Your task to perform on an android device: read, delete, or share a saved page in the chrome app Image 0: 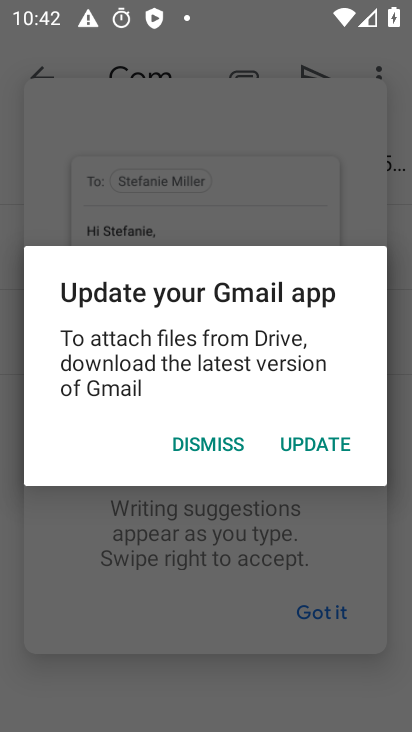
Step 0: press home button
Your task to perform on an android device: read, delete, or share a saved page in the chrome app Image 1: 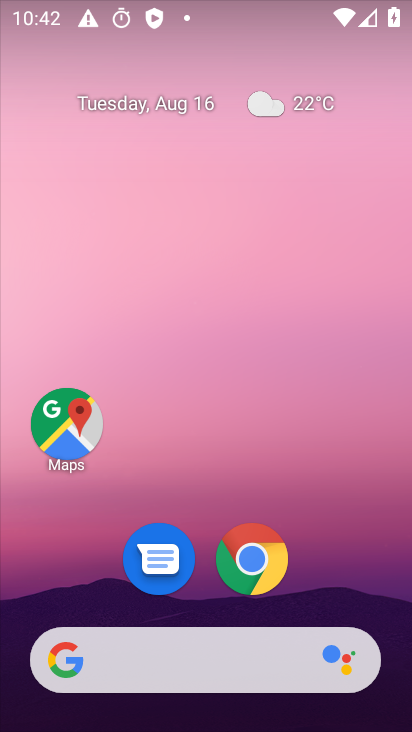
Step 1: click (251, 558)
Your task to perform on an android device: read, delete, or share a saved page in the chrome app Image 2: 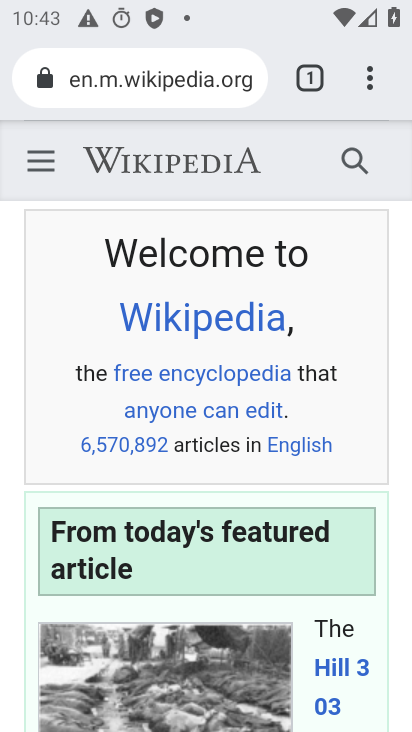
Step 2: click (365, 81)
Your task to perform on an android device: read, delete, or share a saved page in the chrome app Image 3: 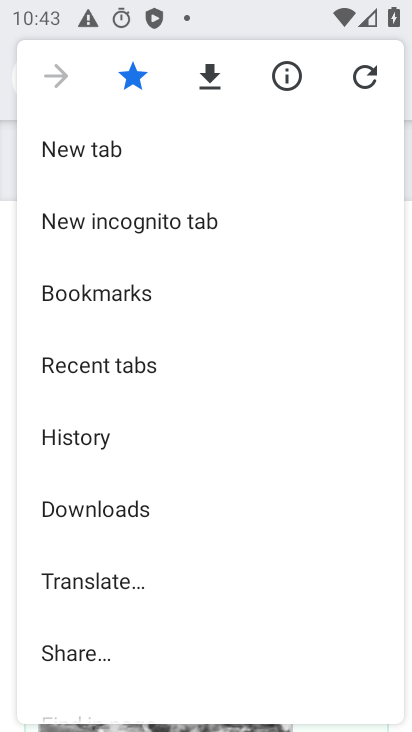
Step 3: task complete